Your task to perform on an android device: Open Google Chrome and click the shortcut for Amazon.com Image 0: 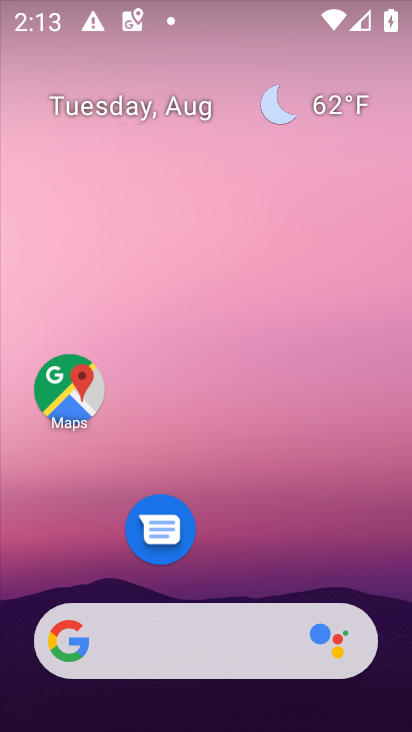
Step 0: drag from (290, 575) to (206, 45)
Your task to perform on an android device: Open Google Chrome and click the shortcut for Amazon.com Image 1: 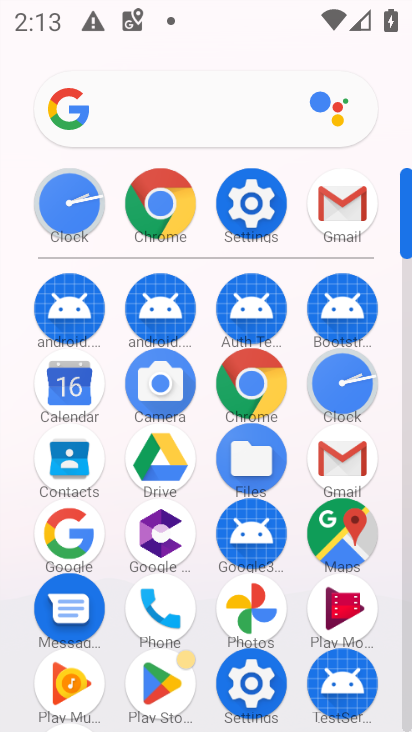
Step 1: click (147, 235)
Your task to perform on an android device: Open Google Chrome and click the shortcut for Amazon.com Image 2: 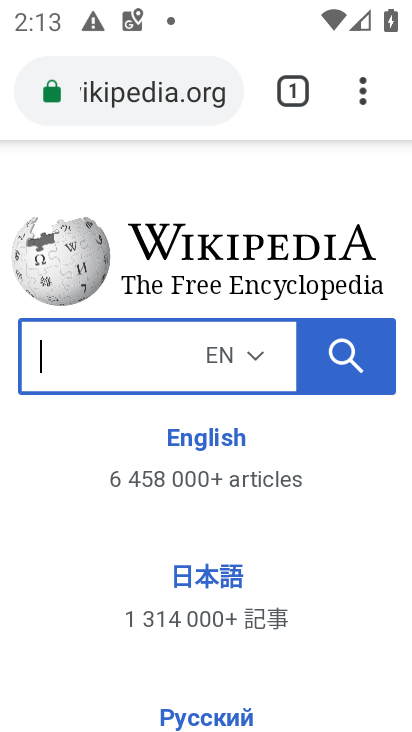
Step 2: click (374, 109)
Your task to perform on an android device: Open Google Chrome and click the shortcut for Amazon.com Image 3: 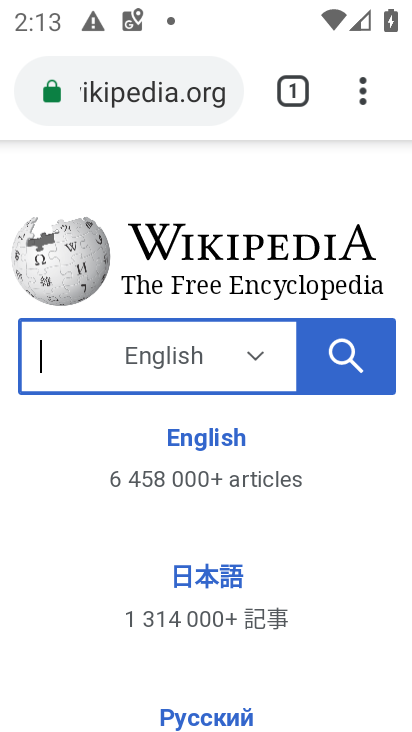
Step 3: click (374, 109)
Your task to perform on an android device: Open Google Chrome and click the shortcut for Amazon.com Image 4: 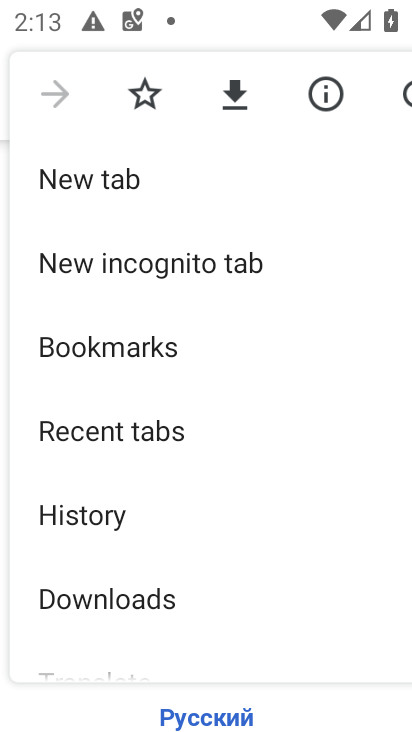
Step 4: click (232, 342)
Your task to perform on an android device: Open Google Chrome and click the shortcut for Amazon.com Image 5: 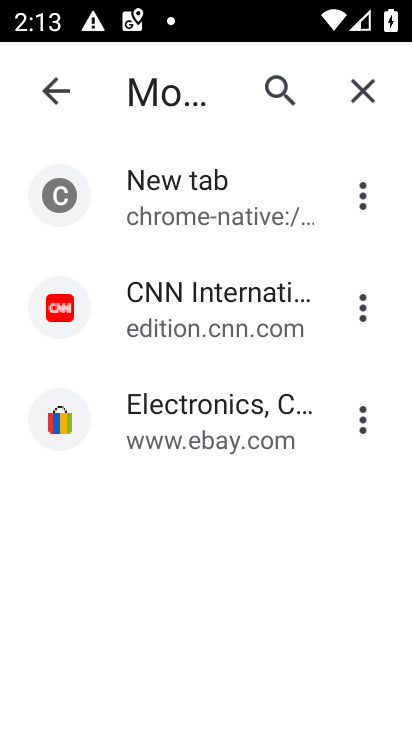
Step 5: click (259, 111)
Your task to perform on an android device: Open Google Chrome and click the shortcut for Amazon.com Image 6: 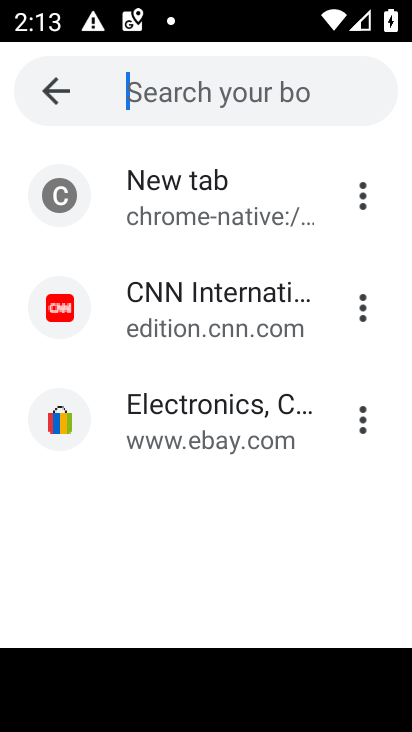
Step 6: task complete